Your task to perform on an android device: Go to calendar. Show me events next week Image 0: 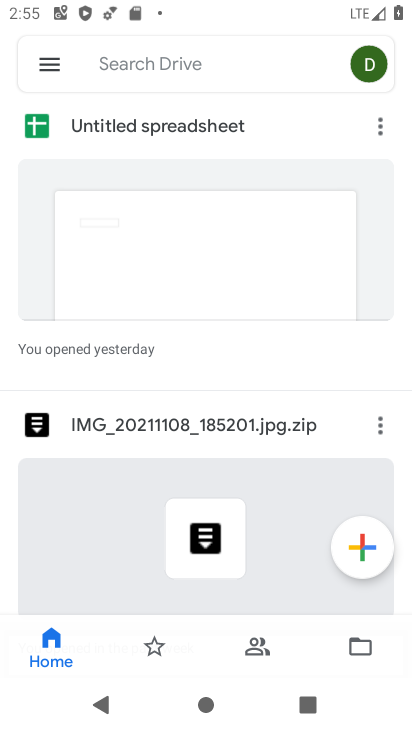
Step 0: press home button
Your task to perform on an android device: Go to calendar. Show me events next week Image 1: 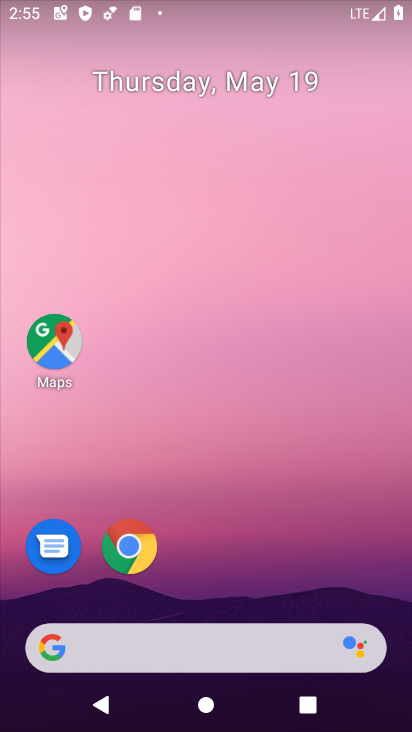
Step 1: drag from (191, 652) to (293, 127)
Your task to perform on an android device: Go to calendar. Show me events next week Image 2: 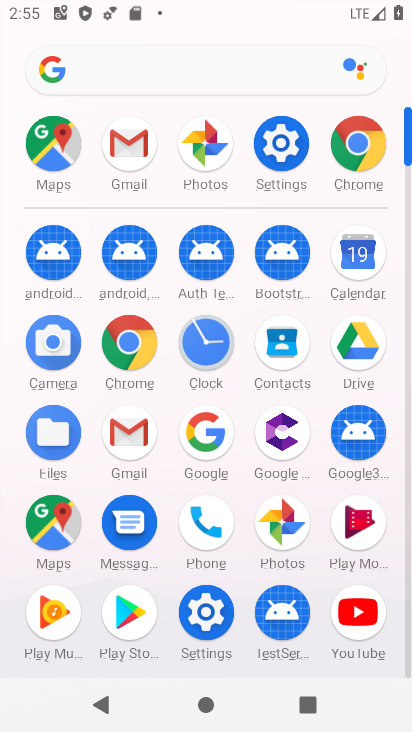
Step 2: click (359, 268)
Your task to perform on an android device: Go to calendar. Show me events next week Image 3: 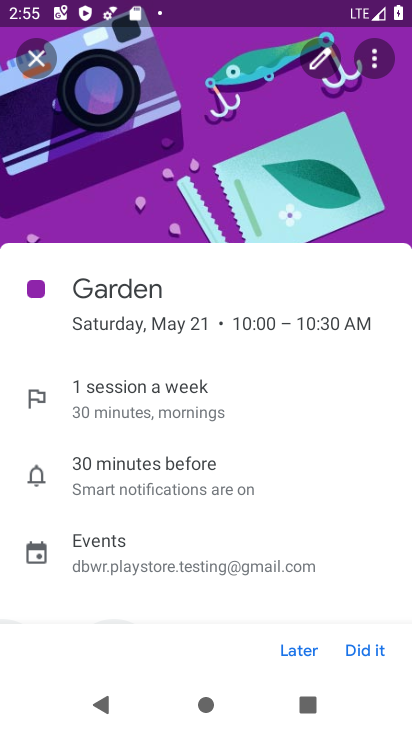
Step 3: click (37, 59)
Your task to perform on an android device: Go to calendar. Show me events next week Image 4: 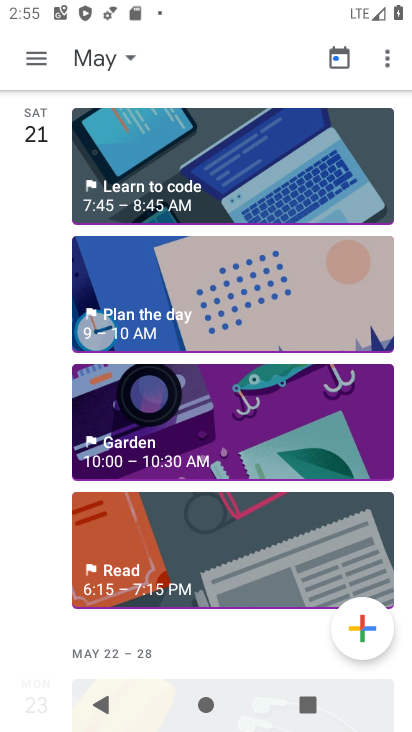
Step 4: click (104, 62)
Your task to perform on an android device: Go to calendar. Show me events next week Image 5: 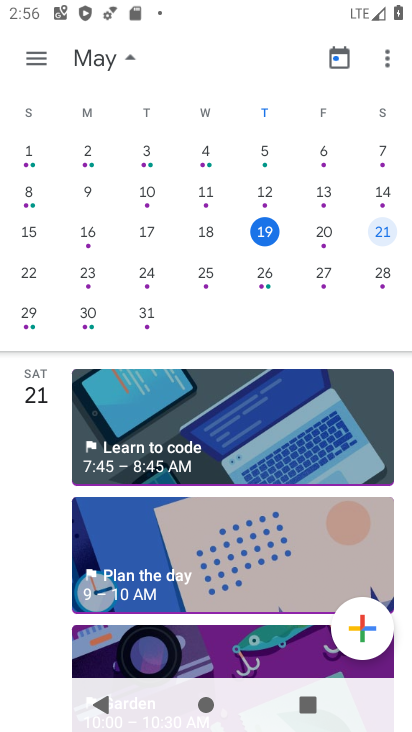
Step 5: click (22, 270)
Your task to perform on an android device: Go to calendar. Show me events next week Image 6: 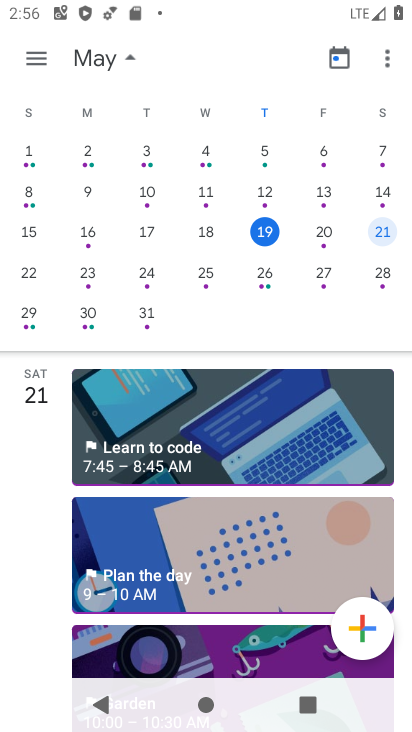
Step 6: click (37, 275)
Your task to perform on an android device: Go to calendar. Show me events next week Image 7: 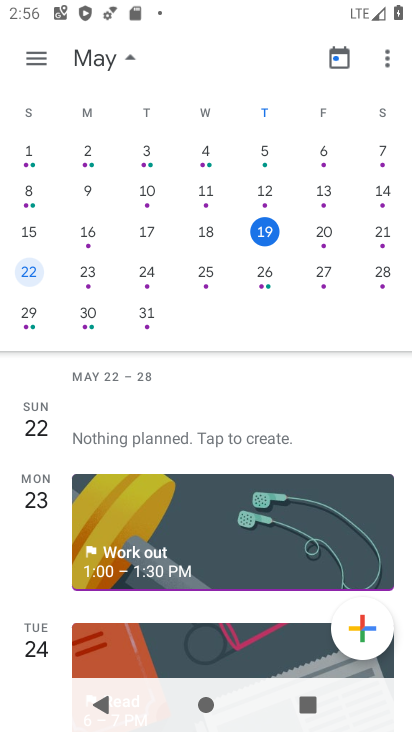
Step 7: click (42, 56)
Your task to perform on an android device: Go to calendar. Show me events next week Image 8: 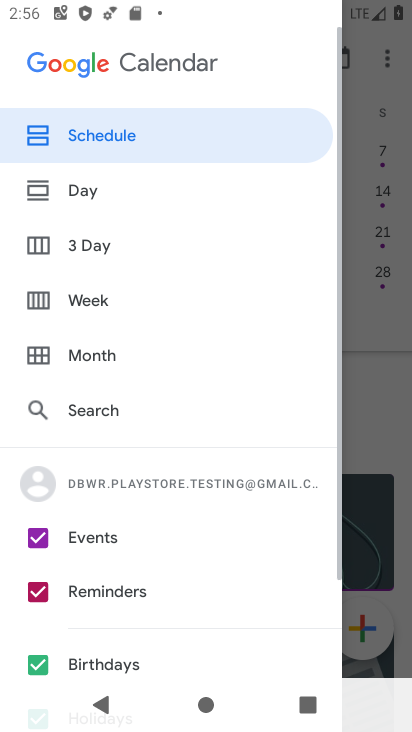
Step 8: click (89, 302)
Your task to perform on an android device: Go to calendar. Show me events next week Image 9: 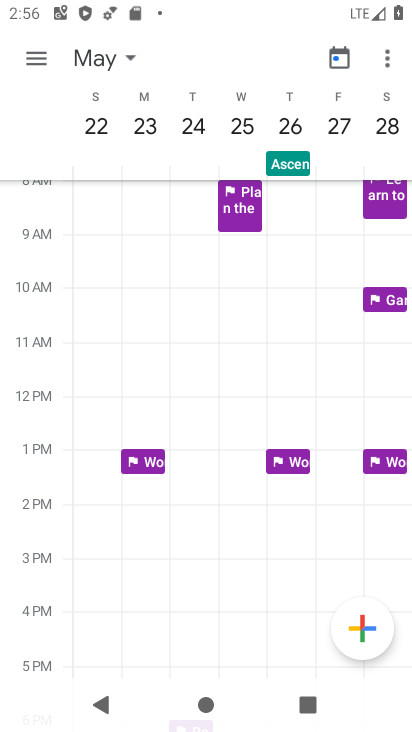
Step 9: click (35, 58)
Your task to perform on an android device: Go to calendar. Show me events next week Image 10: 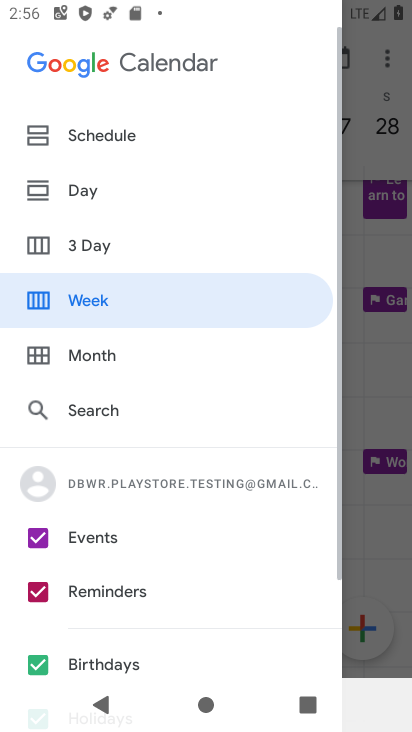
Step 10: click (128, 128)
Your task to perform on an android device: Go to calendar. Show me events next week Image 11: 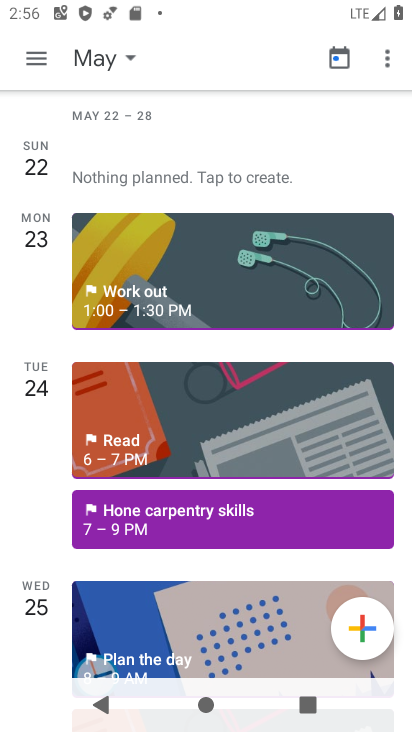
Step 11: click (227, 528)
Your task to perform on an android device: Go to calendar. Show me events next week Image 12: 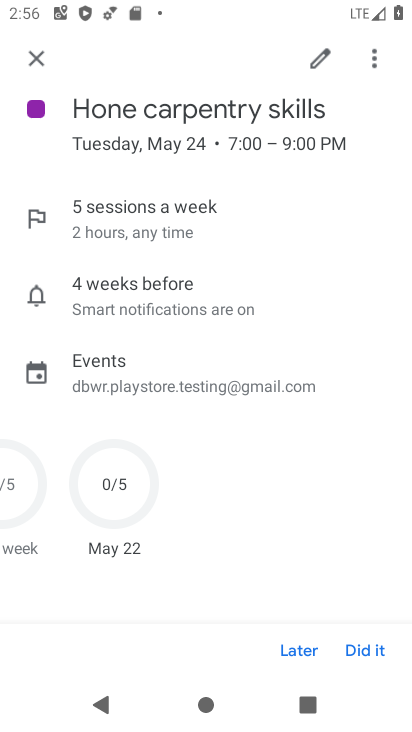
Step 12: task complete